Your task to perform on an android device: Show me the alarms in the clock app Image 0: 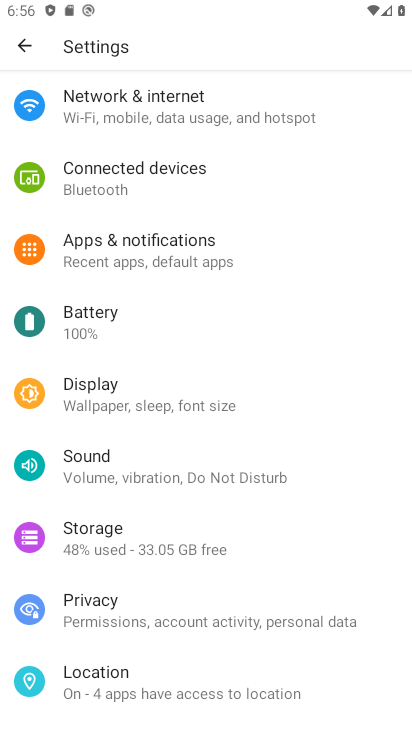
Step 0: press home button
Your task to perform on an android device: Show me the alarms in the clock app Image 1: 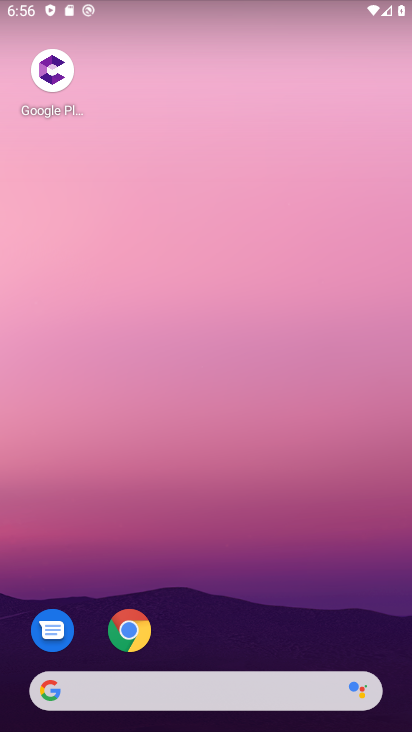
Step 1: drag from (267, 718) to (264, 78)
Your task to perform on an android device: Show me the alarms in the clock app Image 2: 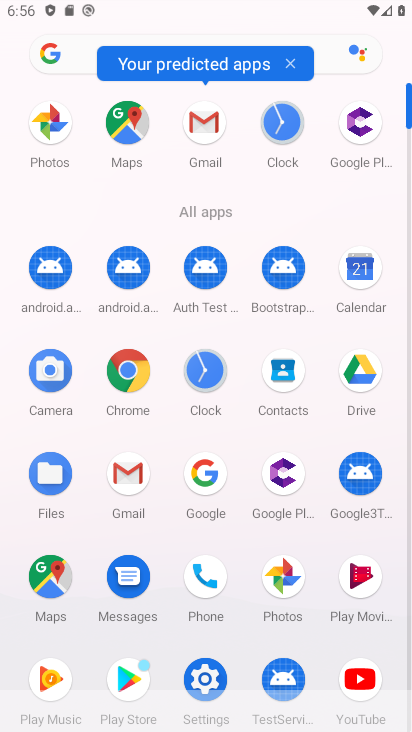
Step 2: click (208, 368)
Your task to perform on an android device: Show me the alarms in the clock app Image 3: 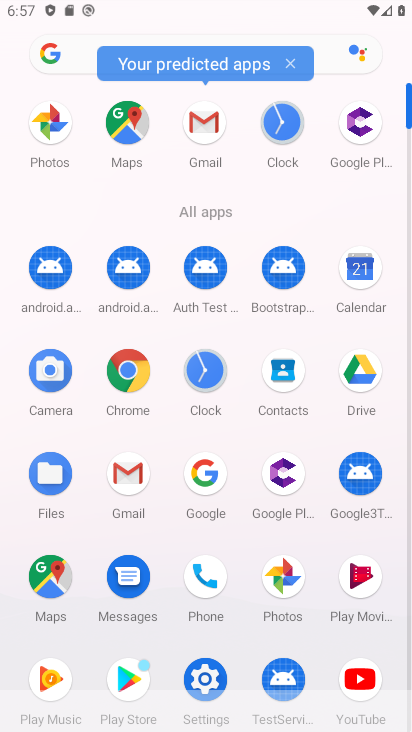
Step 3: click (208, 368)
Your task to perform on an android device: Show me the alarms in the clock app Image 4: 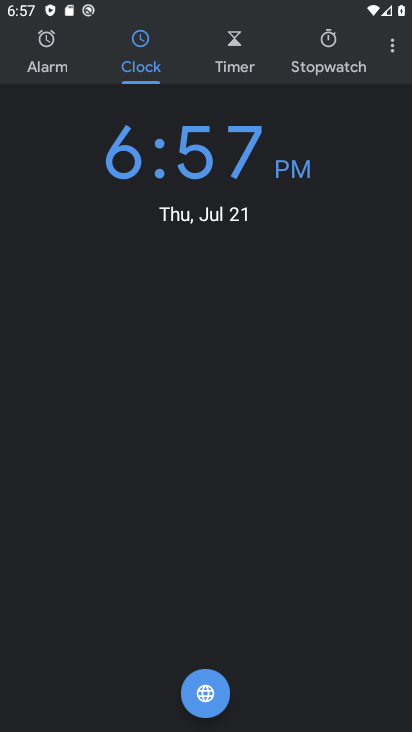
Step 4: click (57, 50)
Your task to perform on an android device: Show me the alarms in the clock app Image 5: 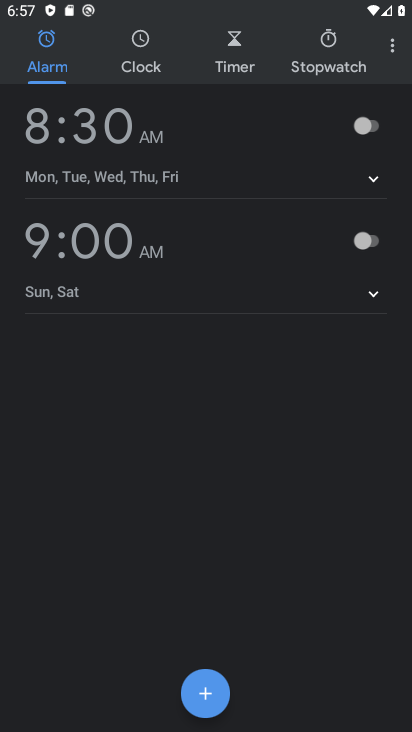
Step 5: task complete